Your task to perform on an android device: Find coffee shops on Maps Image 0: 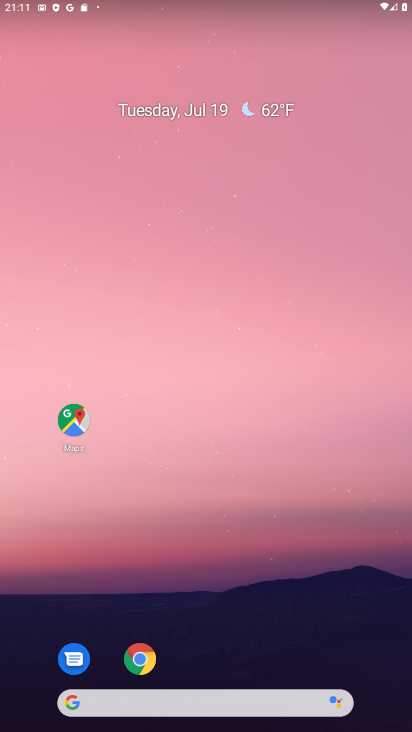
Step 0: press home button
Your task to perform on an android device: Find coffee shops on Maps Image 1: 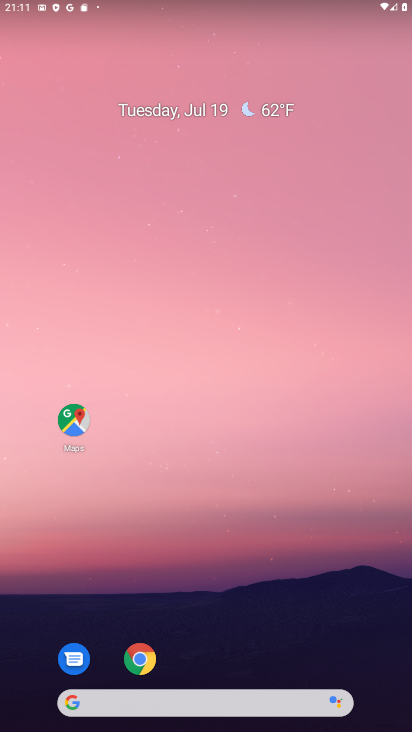
Step 1: click (75, 437)
Your task to perform on an android device: Find coffee shops on Maps Image 2: 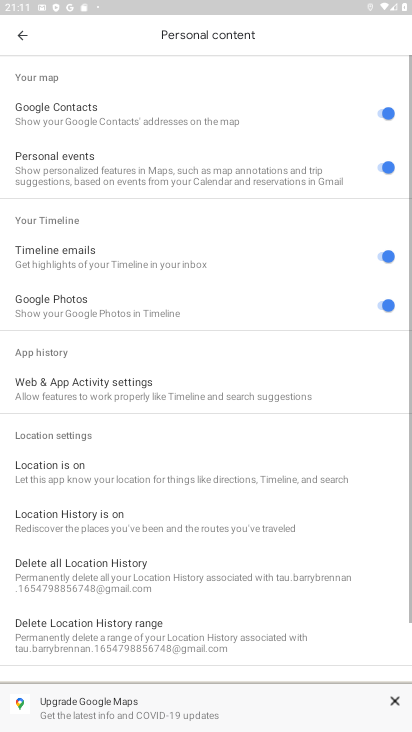
Step 2: click (21, 25)
Your task to perform on an android device: Find coffee shops on Maps Image 3: 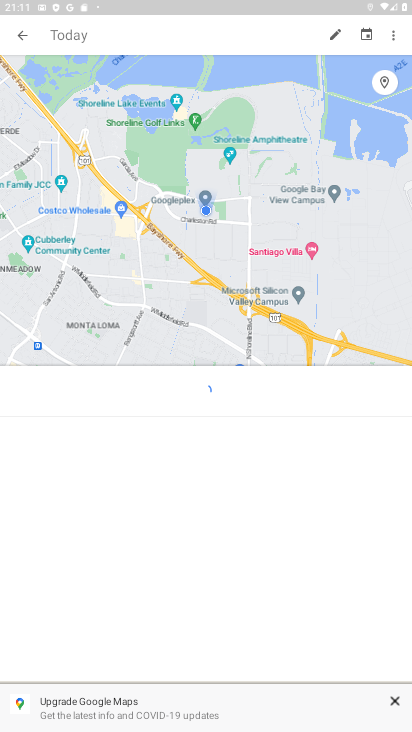
Step 3: click (21, 30)
Your task to perform on an android device: Find coffee shops on Maps Image 4: 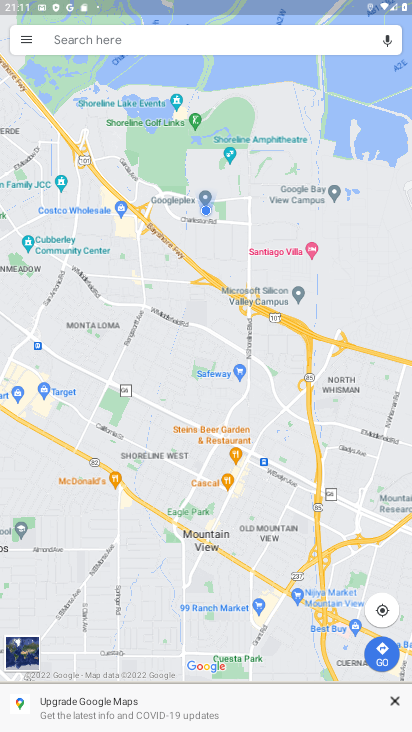
Step 4: click (116, 43)
Your task to perform on an android device: Find coffee shops on Maps Image 5: 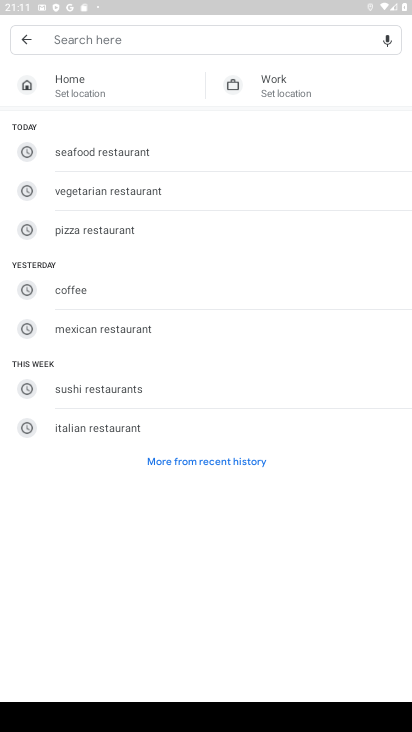
Step 5: type "coffee shops "
Your task to perform on an android device: Find coffee shops on Maps Image 6: 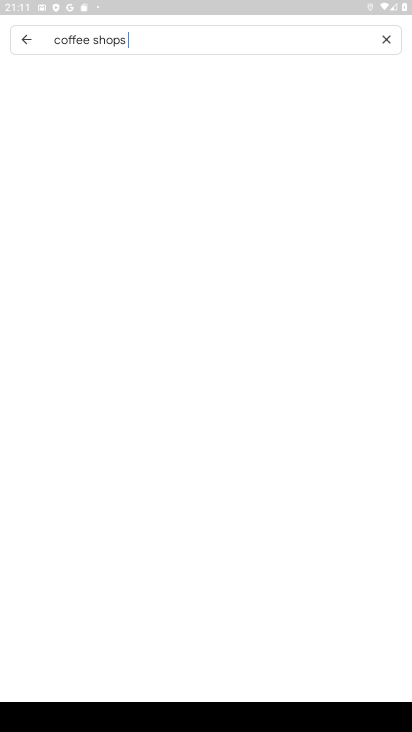
Step 6: type ""
Your task to perform on an android device: Find coffee shops on Maps Image 7: 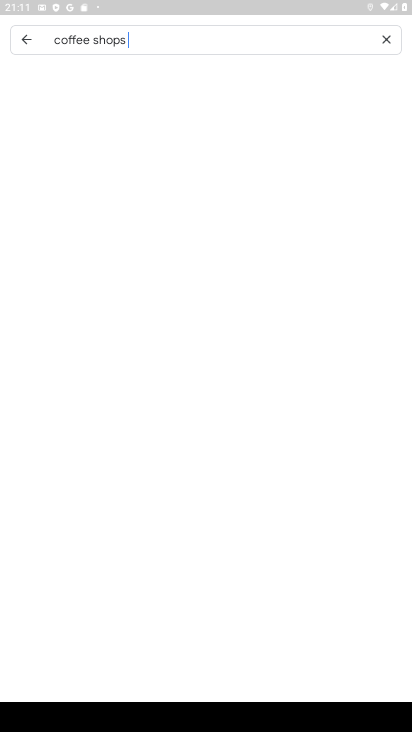
Step 7: click (88, 81)
Your task to perform on an android device: Find coffee shops on Maps Image 8: 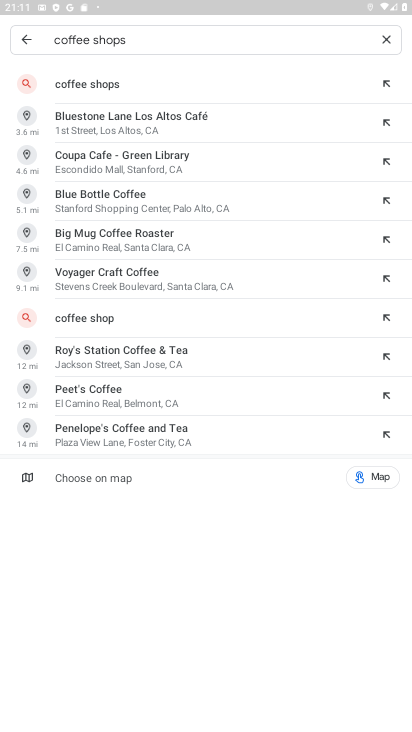
Step 8: click (88, 81)
Your task to perform on an android device: Find coffee shops on Maps Image 9: 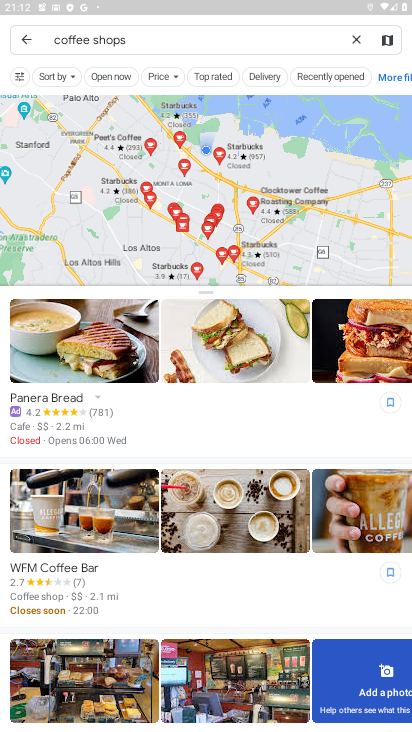
Step 9: task complete